Your task to perform on an android device: Search for vegetarian restaurants on Maps Image 0: 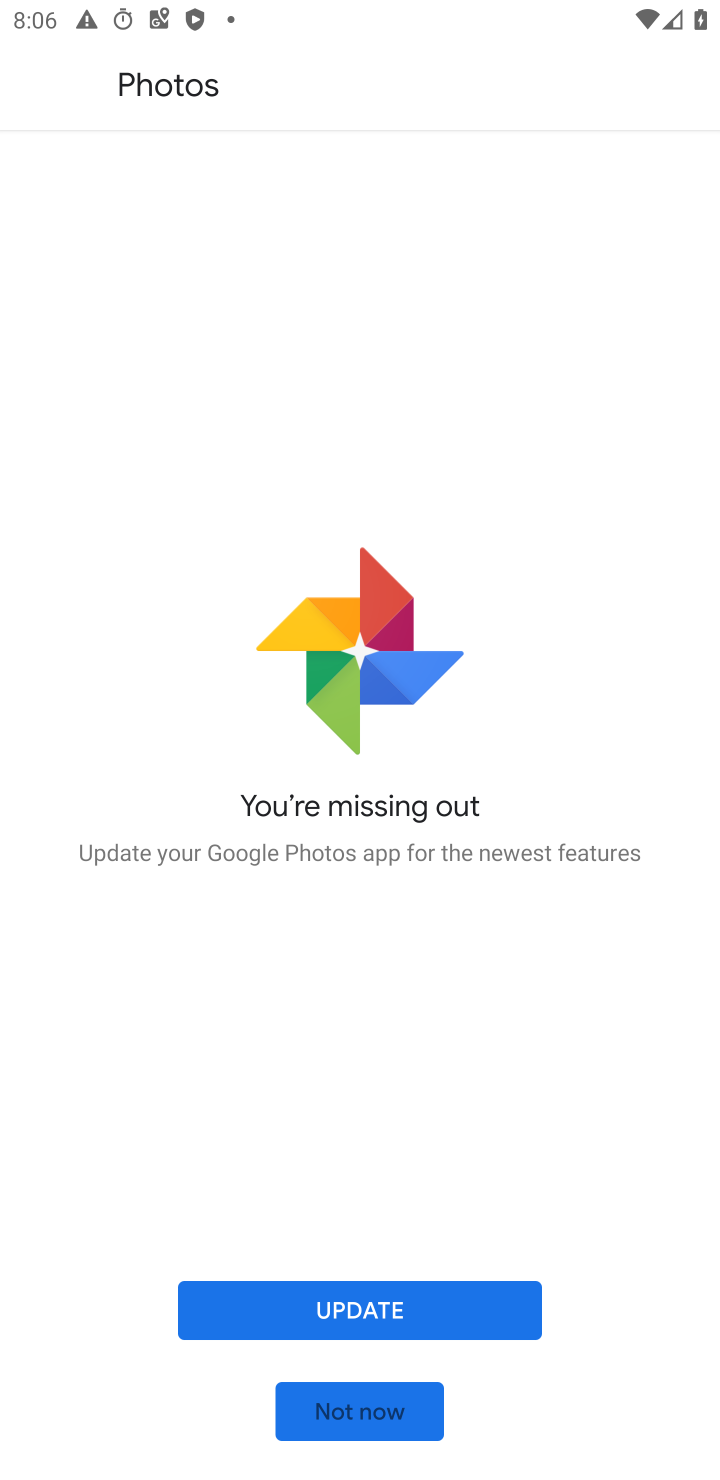
Step 0: press home button
Your task to perform on an android device: Search for vegetarian restaurants on Maps Image 1: 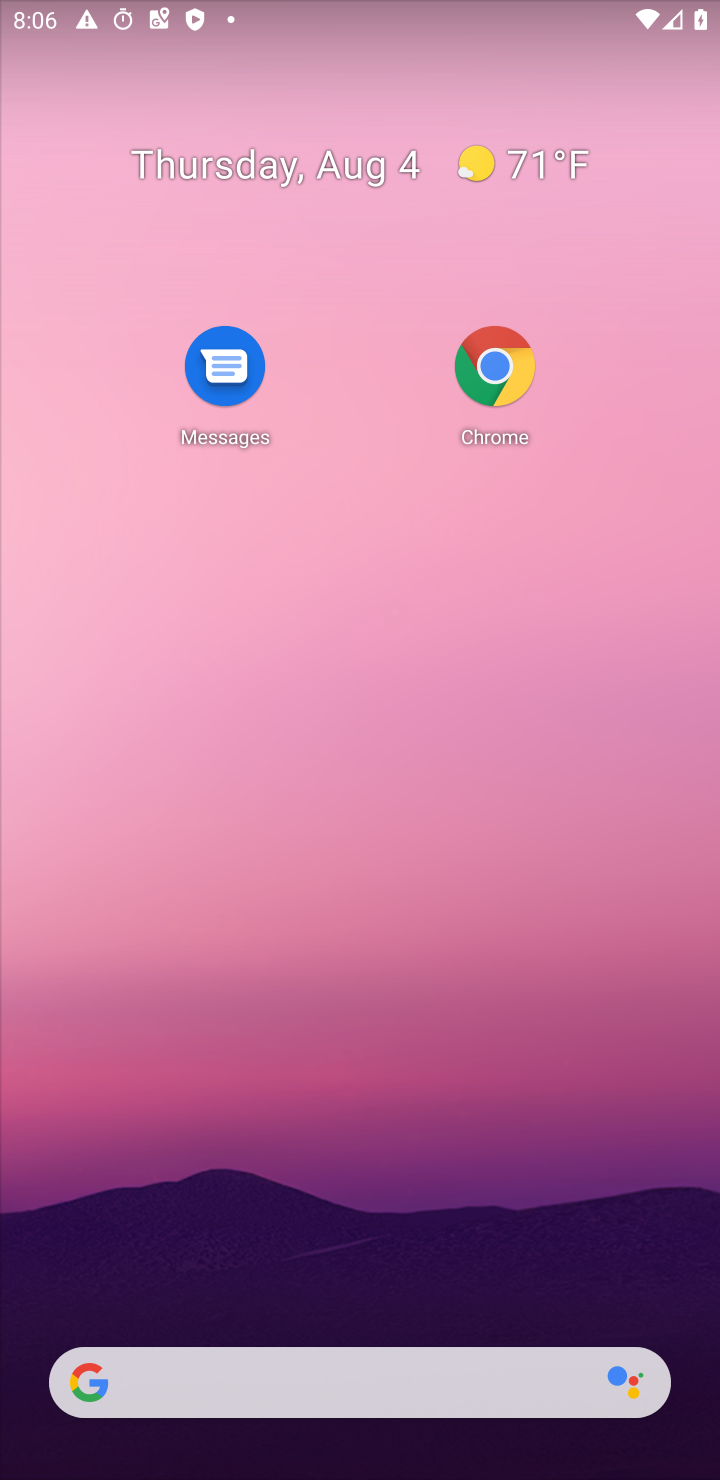
Step 1: drag from (440, 1418) to (270, 382)
Your task to perform on an android device: Search for vegetarian restaurants on Maps Image 2: 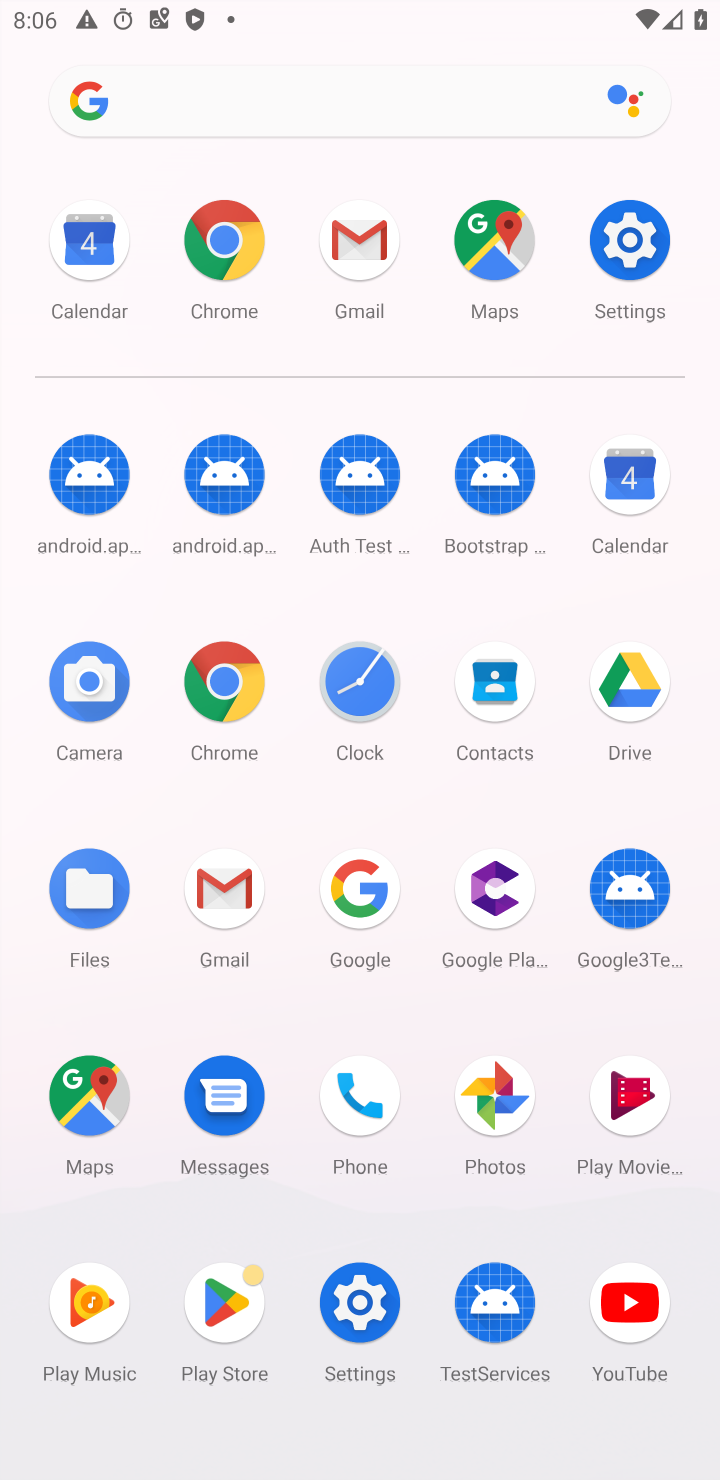
Step 2: click (469, 241)
Your task to perform on an android device: Search for vegetarian restaurants on Maps Image 3: 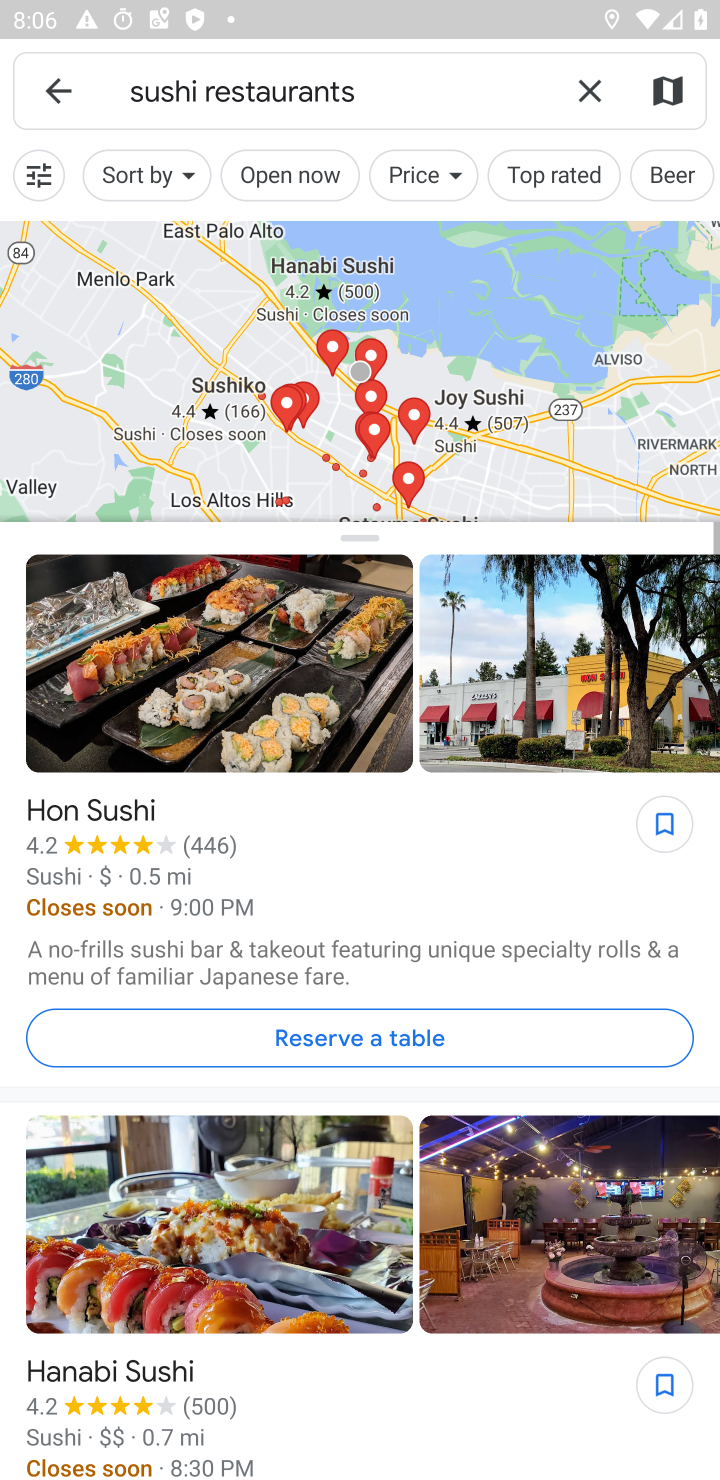
Step 3: click (591, 75)
Your task to perform on an android device: Search for vegetarian restaurants on Maps Image 4: 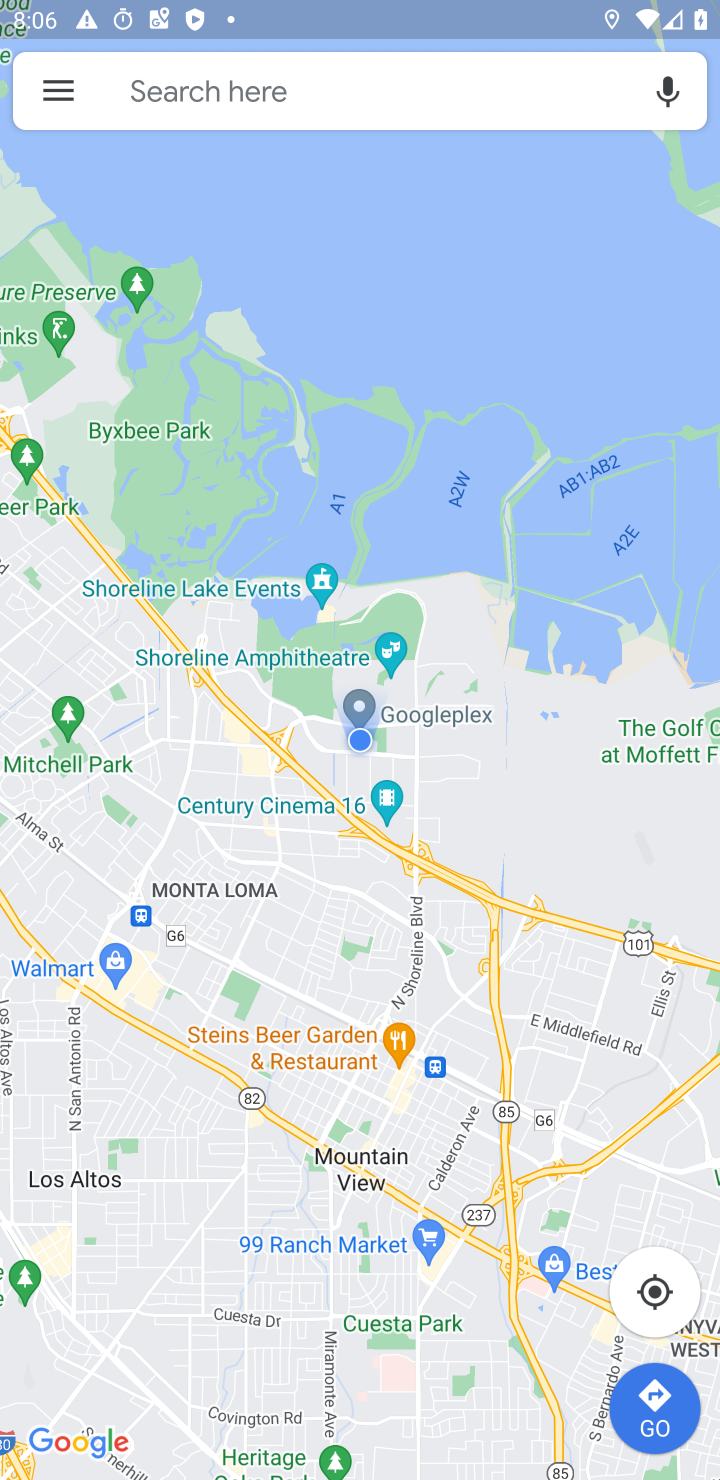
Step 4: click (375, 87)
Your task to perform on an android device: Search for vegetarian restaurants on Maps Image 5: 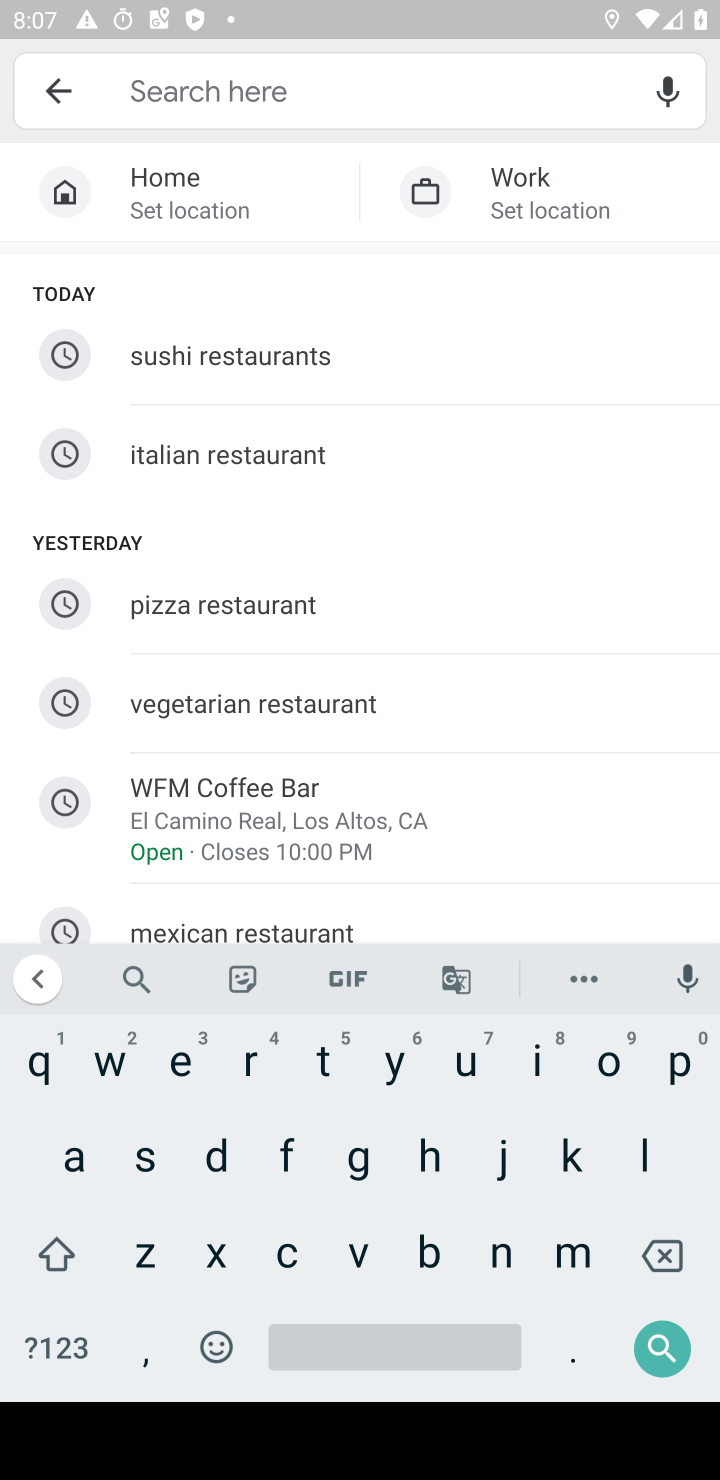
Step 5: click (305, 716)
Your task to perform on an android device: Search for vegetarian restaurants on Maps Image 6: 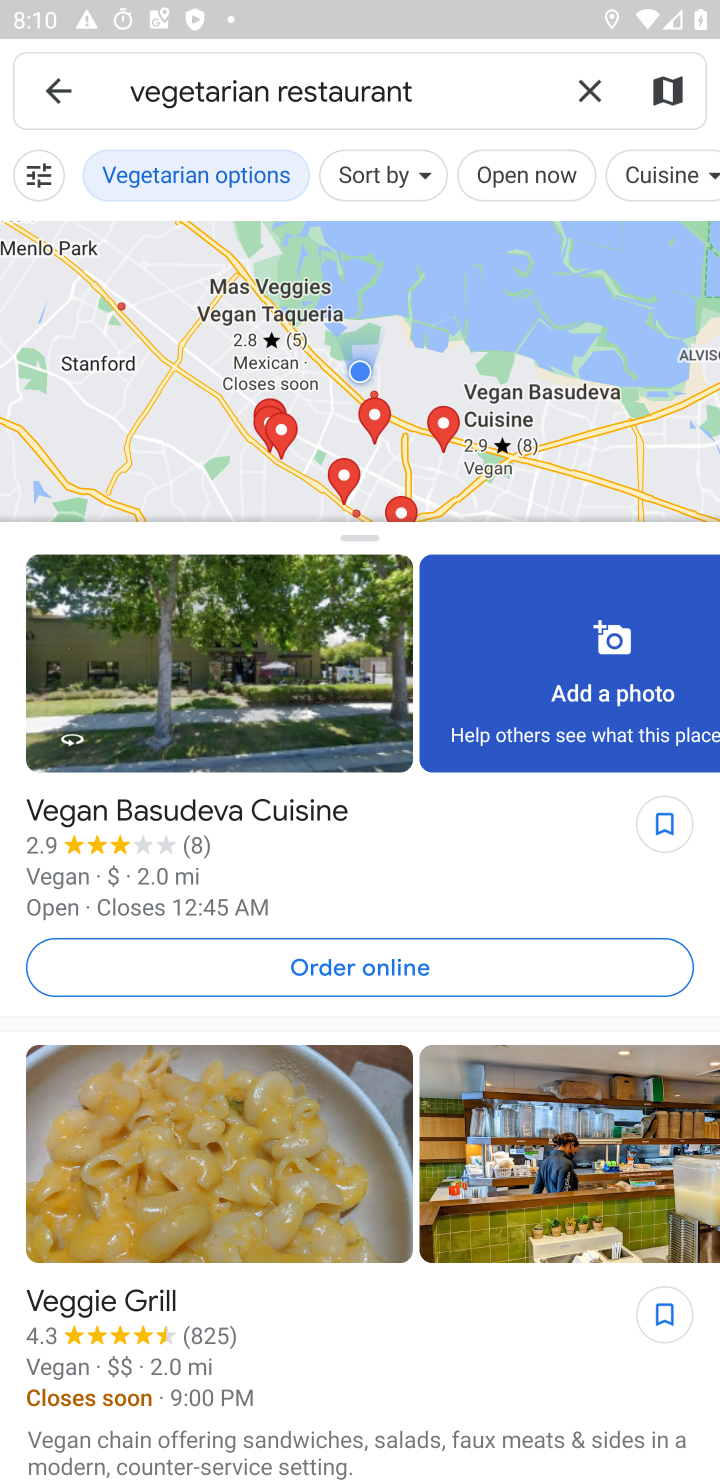
Step 6: task complete